Your task to perform on an android device: toggle location history Image 0: 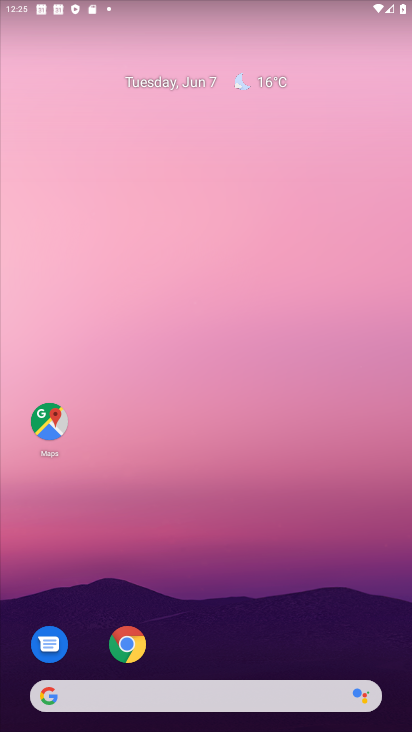
Step 0: click (251, 275)
Your task to perform on an android device: toggle location history Image 1: 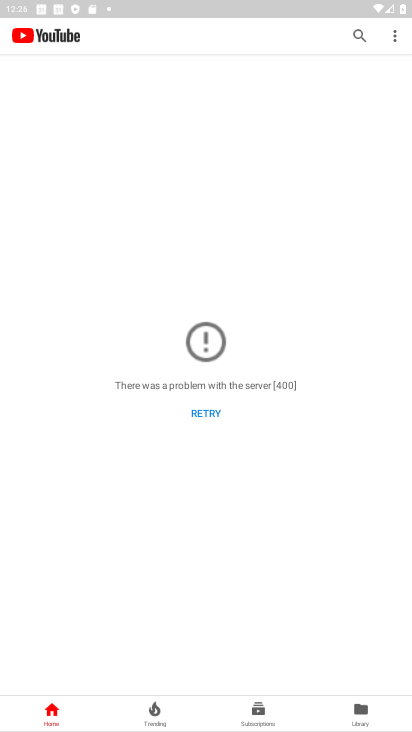
Step 1: press home button
Your task to perform on an android device: toggle location history Image 2: 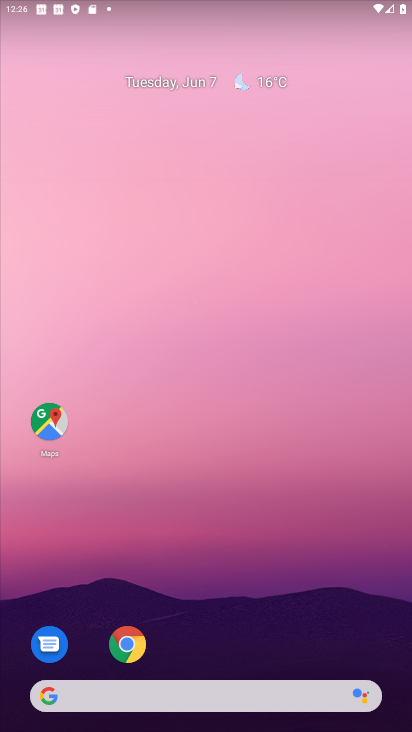
Step 2: drag from (237, 558) to (233, 227)
Your task to perform on an android device: toggle location history Image 3: 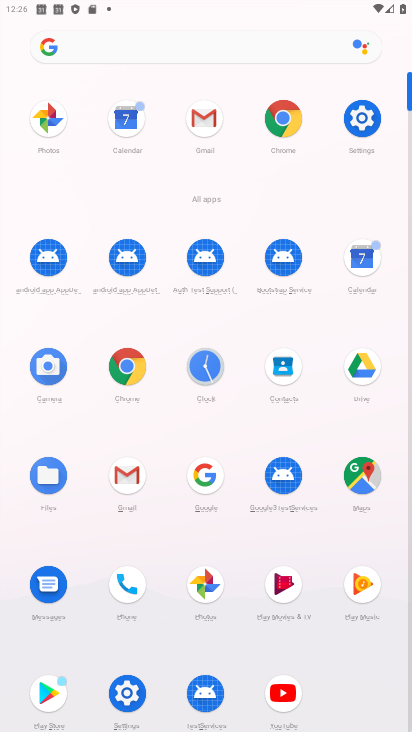
Step 3: click (356, 114)
Your task to perform on an android device: toggle location history Image 4: 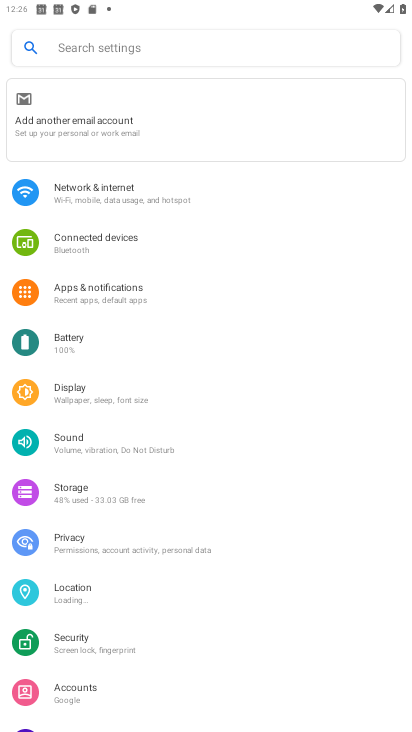
Step 4: click (93, 588)
Your task to perform on an android device: toggle location history Image 5: 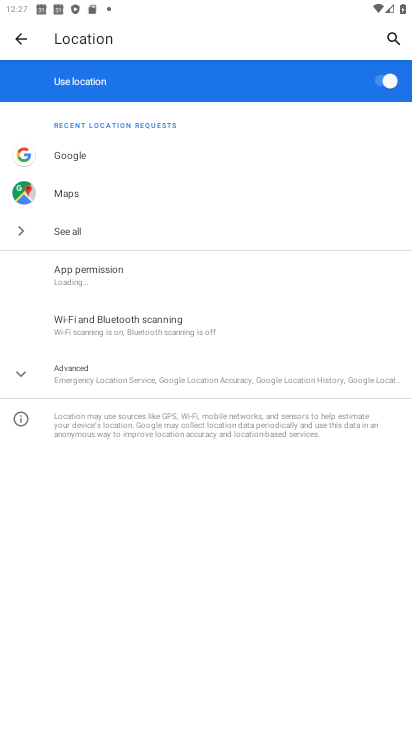
Step 5: click (17, 374)
Your task to perform on an android device: toggle location history Image 6: 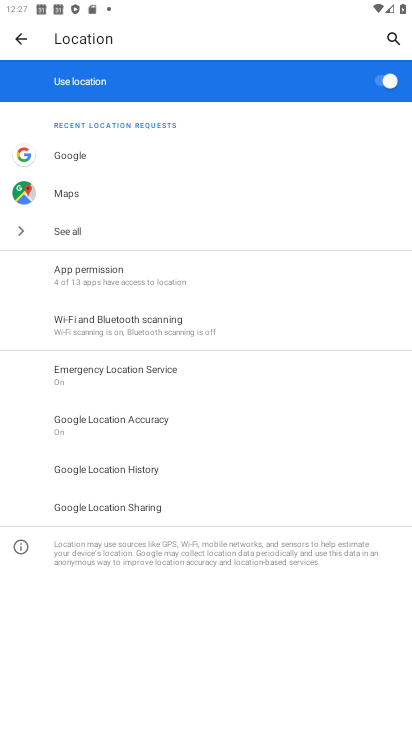
Step 6: click (140, 464)
Your task to perform on an android device: toggle location history Image 7: 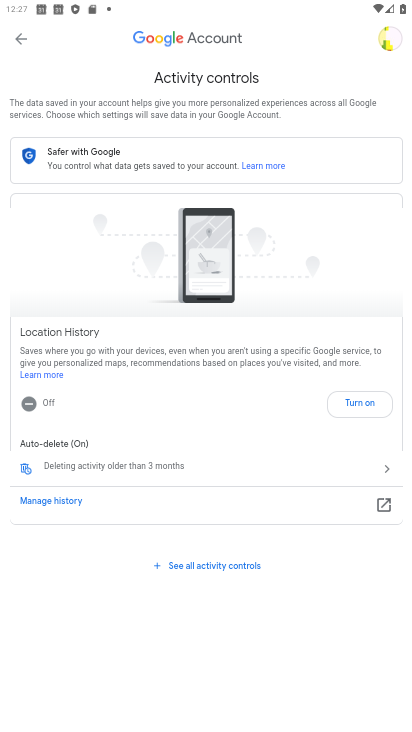
Step 7: click (373, 407)
Your task to perform on an android device: toggle location history Image 8: 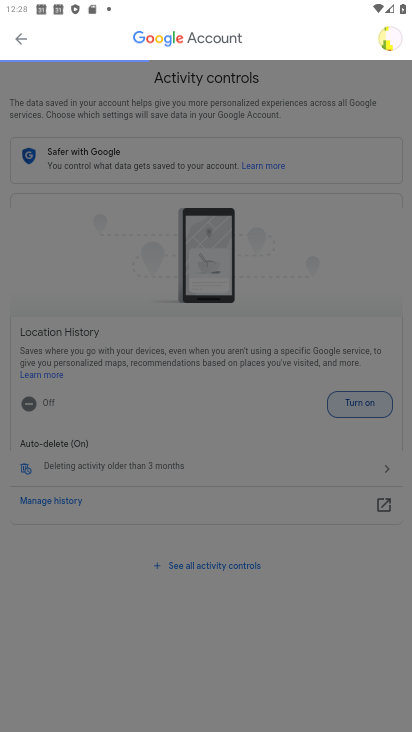
Step 8: task complete